Your task to perform on an android device: Turn on the flashlight Image 0: 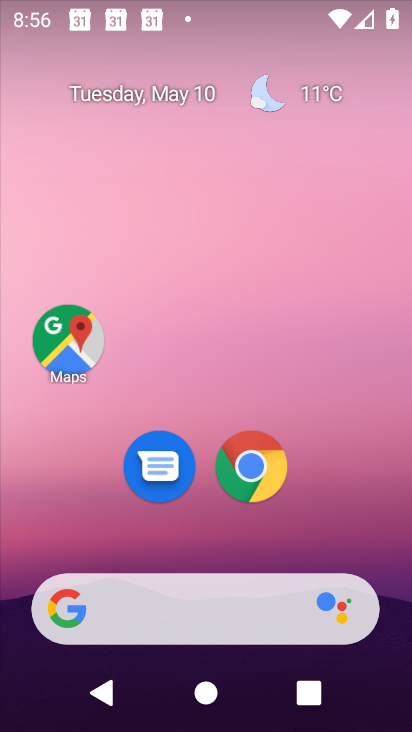
Step 0: drag from (235, 547) to (246, 100)
Your task to perform on an android device: Turn on the flashlight Image 1: 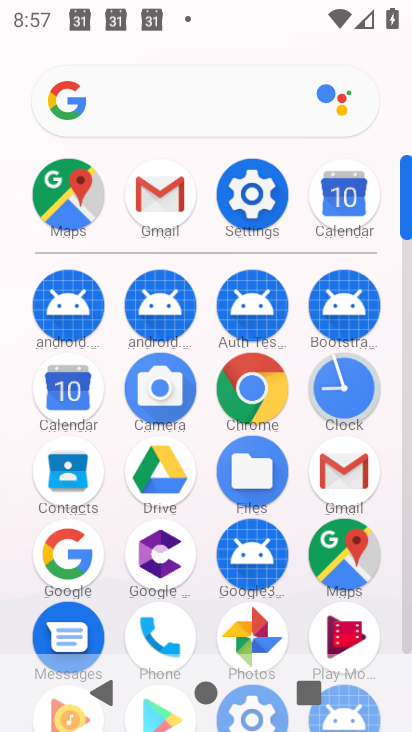
Step 1: click (257, 206)
Your task to perform on an android device: Turn on the flashlight Image 2: 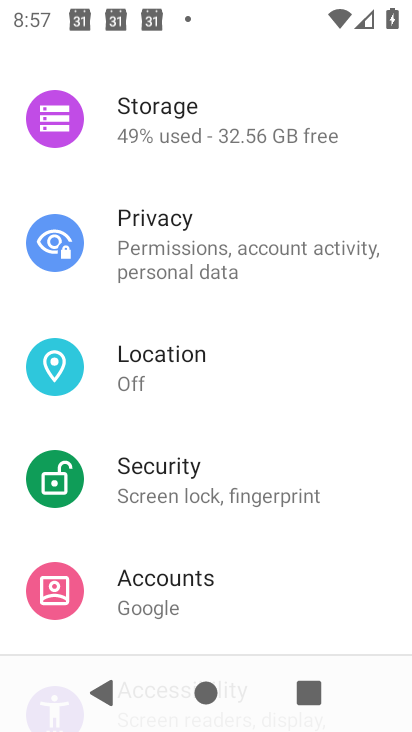
Step 2: drag from (250, 168) to (249, 551)
Your task to perform on an android device: Turn on the flashlight Image 3: 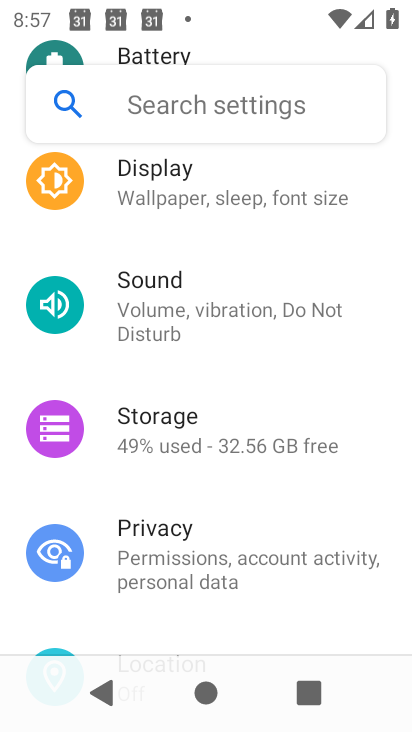
Step 3: click (214, 109)
Your task to perform on an android device: Turn on the flashlight Image 4: 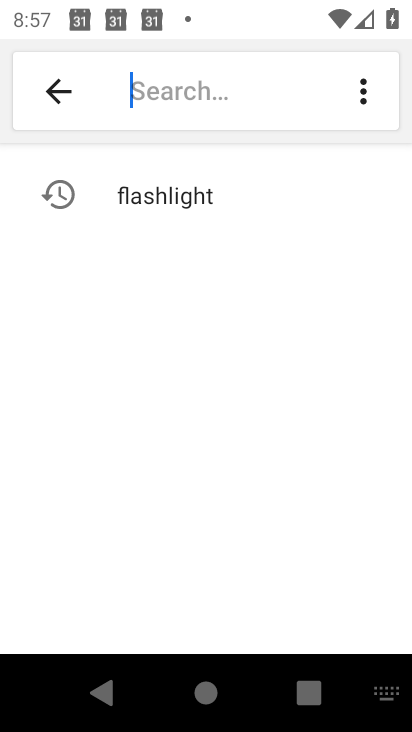
Step 4: type "flashlight"
Your task to perform on an android device: Turn on the flashlight Image 5: 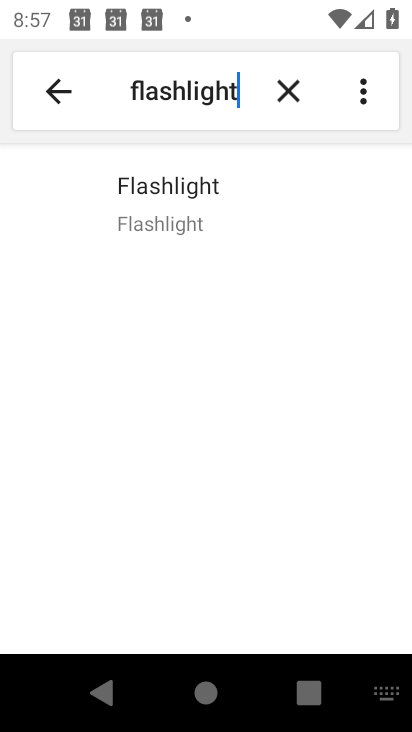
Step 5: click (180, 211)
Your task to perform on an android device: Turn on the flashlight Image 6: 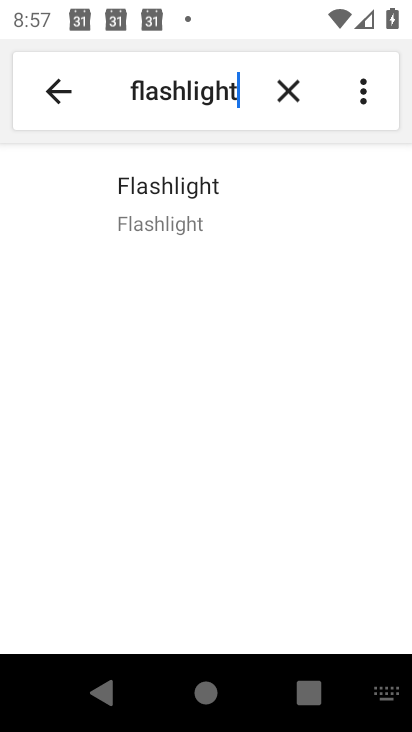
Step 6: click (180, 211)
Your task to perform on an android device: Turn on the flashlight Image 7: 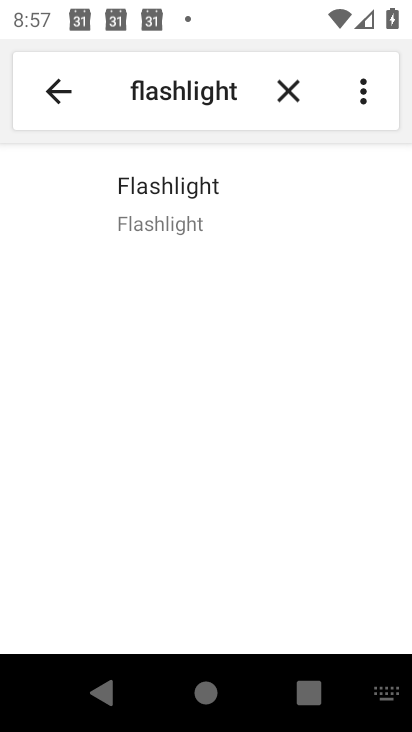
Step 7: task complete